Your task to perform on an android device: turn on sleep mode Image 0: 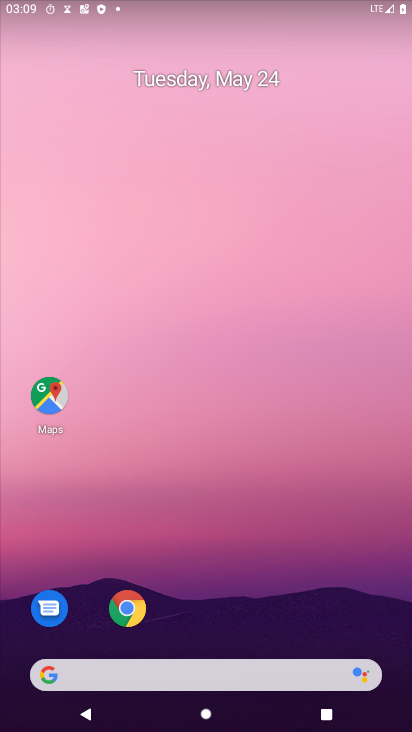
Step 0: click (223, 640)
Your task to perform on an android device: turn on sleep mode Image 1: 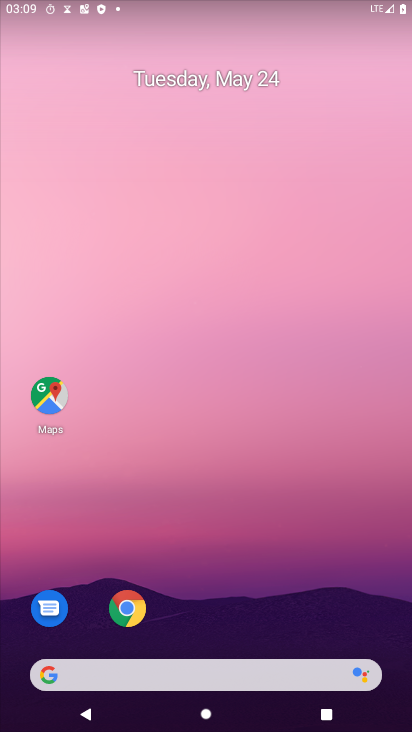
Step 1: drag from (223, 640) to (165, 121)
Your task to perform on an android device: turn on sleep mode Image 2: 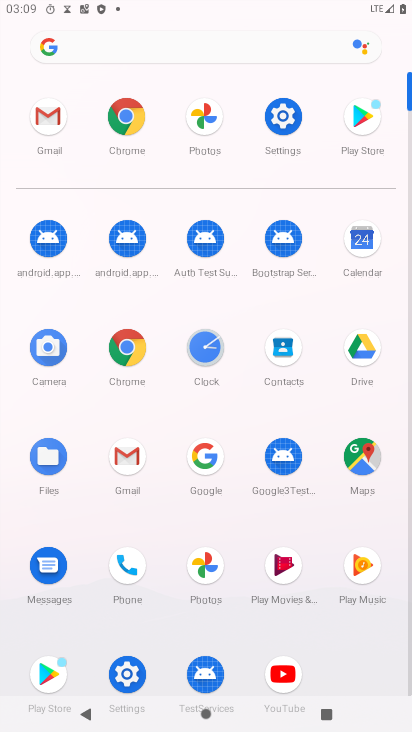
Step 2: click (285, 120)
Your task to perform on an android device: turn on sleep mode Image 3: 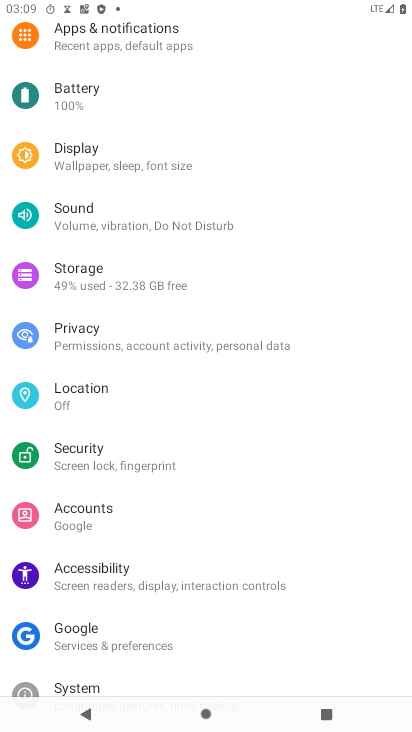
Step 3: click (262, 158)
Your task to perform on an android device: turn on sleep mode Image 4: 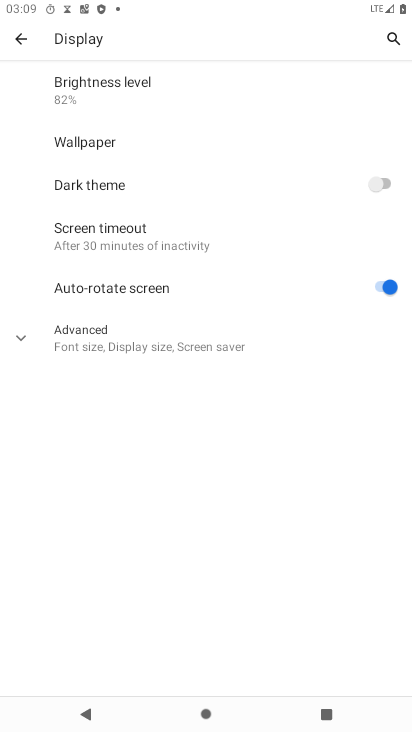
Step 4: click (213, 344)
Your task to perform on an android device: turn on sleep mode Image 5: 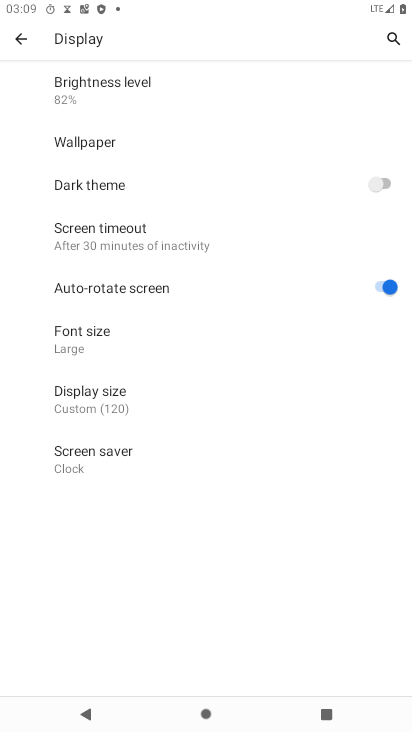
Step 5: task complete